Your task to perform on an android device: Show me recent news Image 0: 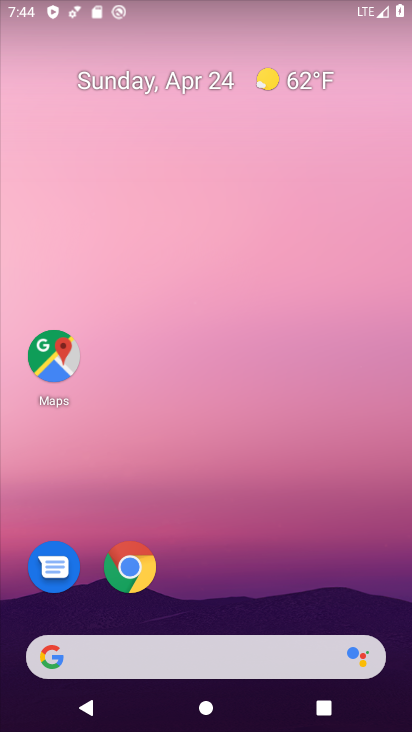
Step 0: drag from (226, 522) to (214, 48)
Your task to perform on an android device: Show me recent news Image 1: 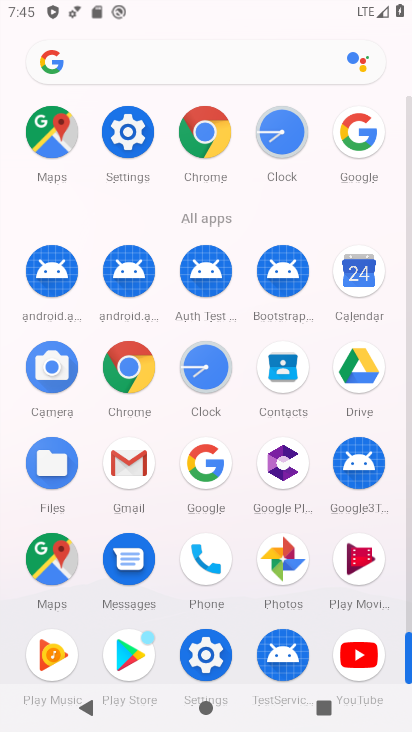
Step 1: click (357, 135)
Your task to perform on an android device: Show me recent news Image 2: 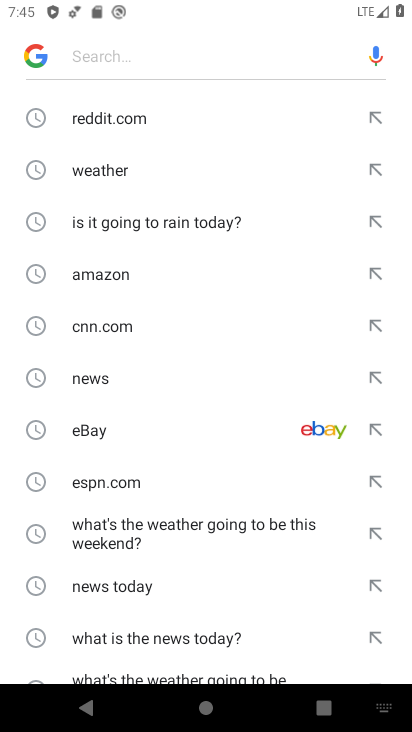
Step 2: click (270, 51)
Your task to perform on an android device: Show me recent news Image 3: 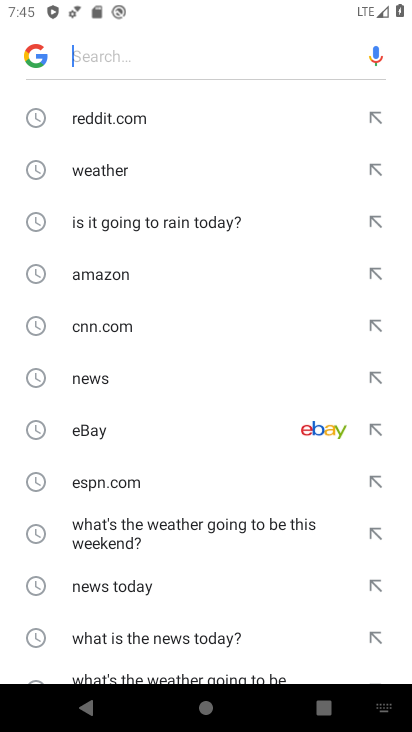
Step 3: type "recent news"
Your task to perform on an android device: Show me recent news Image 4: 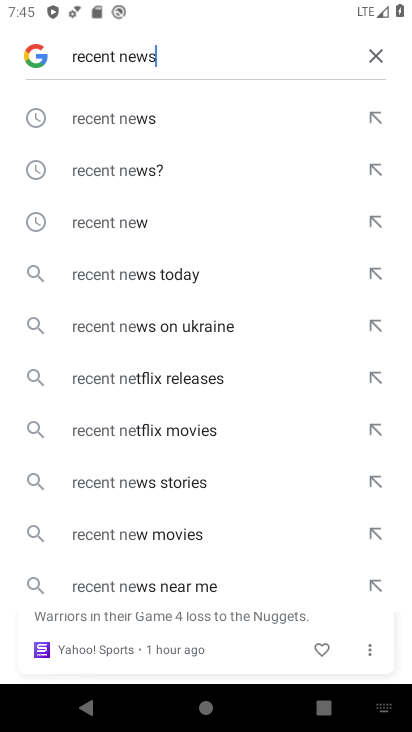
Step 4: type ""
Your task to perform on an android device: Show me recent news Image 5: 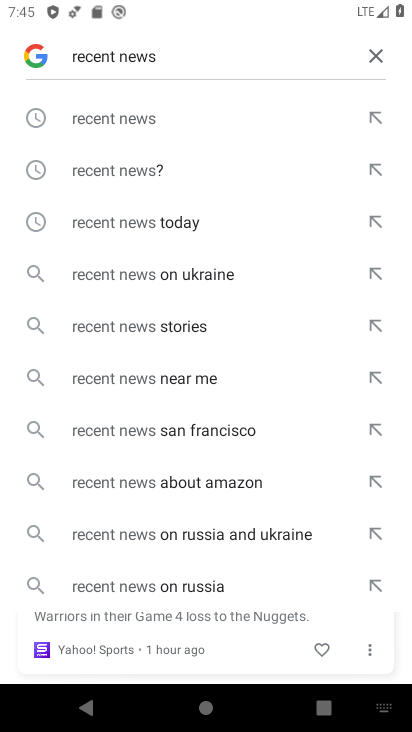
Step 5: click (135, 172)
Your task to perform on an android device: Show me recent news Image 6: 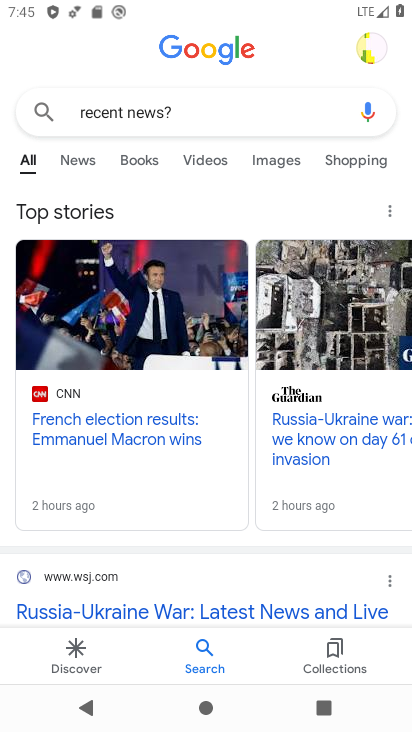
Step 6: task complete